Your task to perform on an android device: turn notification dots off Image 0: 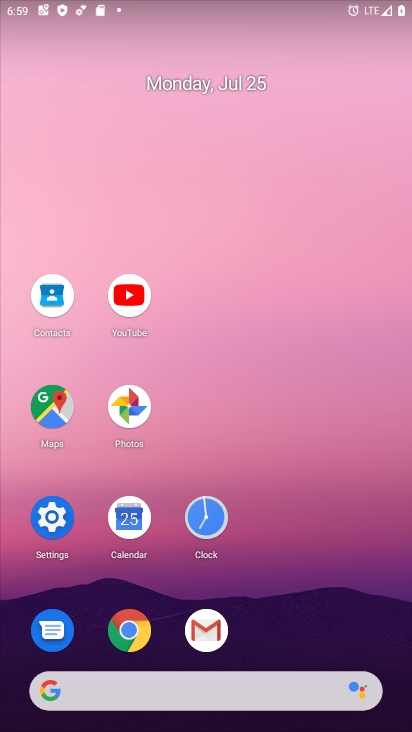
Step 0: click (53, 511)
Your task to perform on an android device: turn notification dots off Image 1: 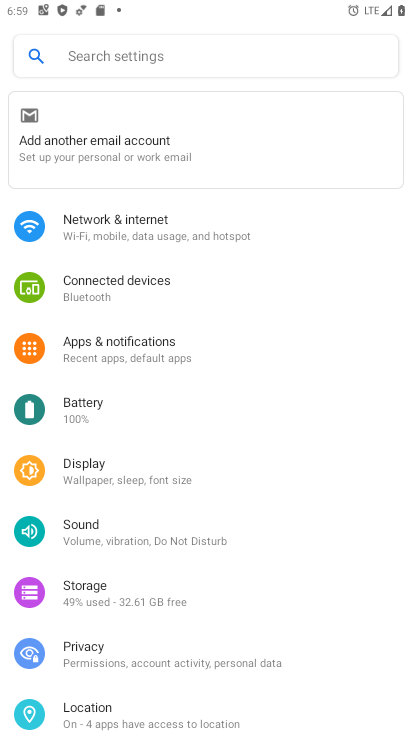
Step 1: click (143, 340)
Your task to perform on an android device: turn notification dots off Image 2: 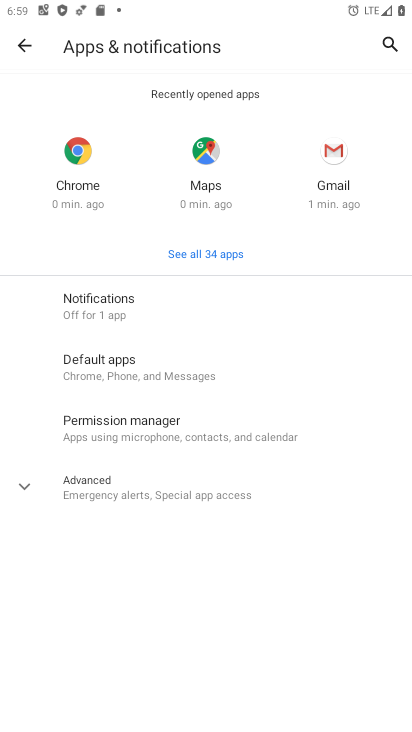
Step 2: click (81, 295)
Your task to perform on an android device: turn notification dots off Image 3: 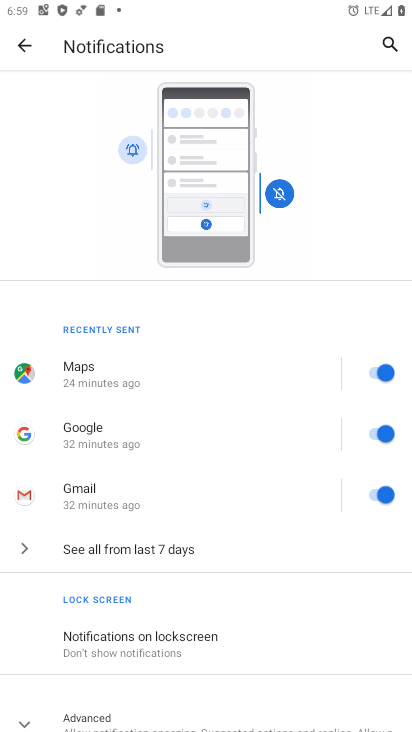
Step 3: click (25, 719)
Your task to perform on an android device: turn notification dots off Image 4: 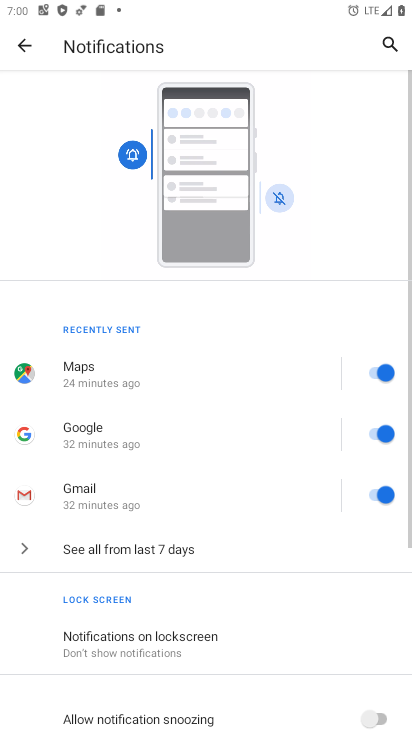
Step 4: drag from (274, 593) to (274, 104)
Your task to perform on an android device: turn notification dots off Image 5: 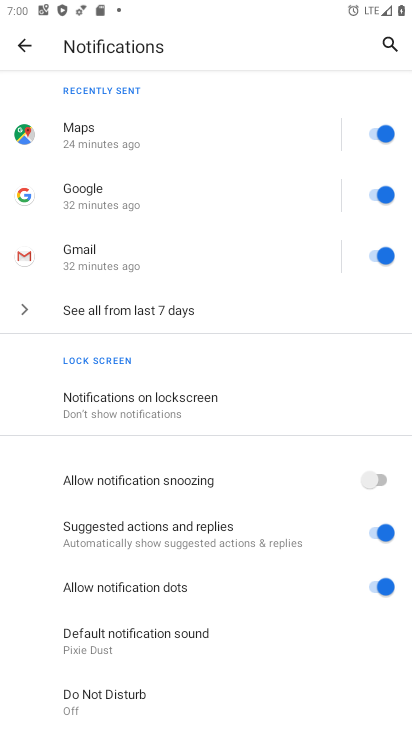
Step 5: click (380, 582)
Your task to perform on an android device: turn notification dots off Image 6: 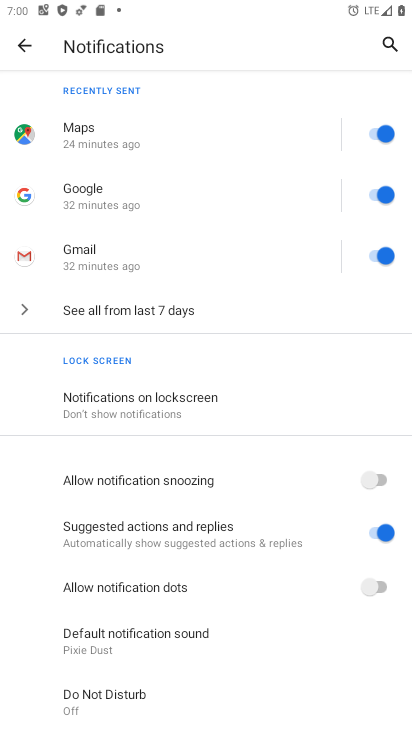
Step 6: task complete